Your task to perform on an android device: allow notifications from all sites in the chrome app Image 0: 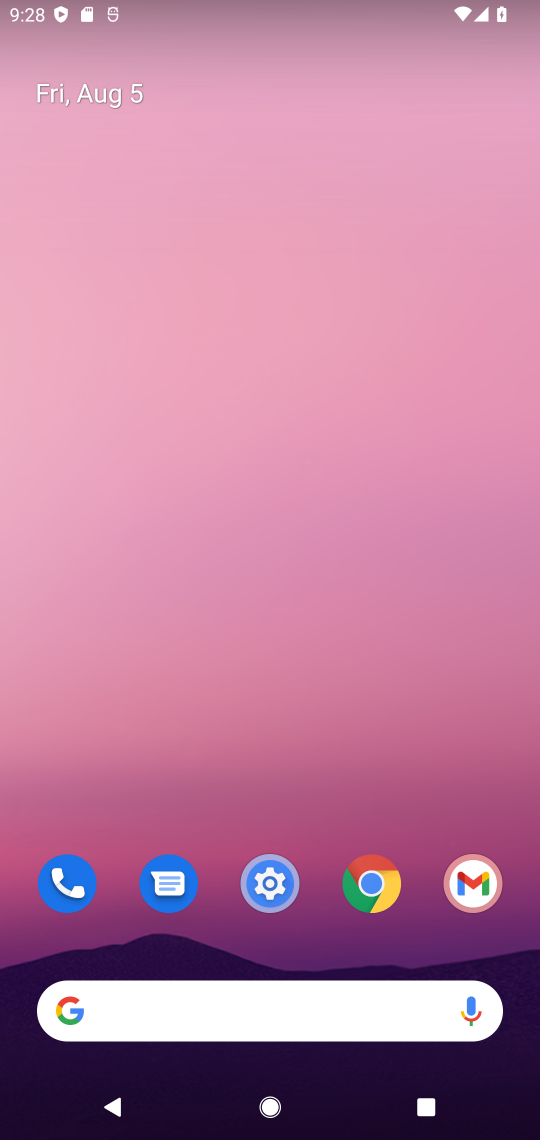
Step 0: click (379, 883)
Your task to perform on an android device: allow notifications from all sites in the chrome app Image 1: 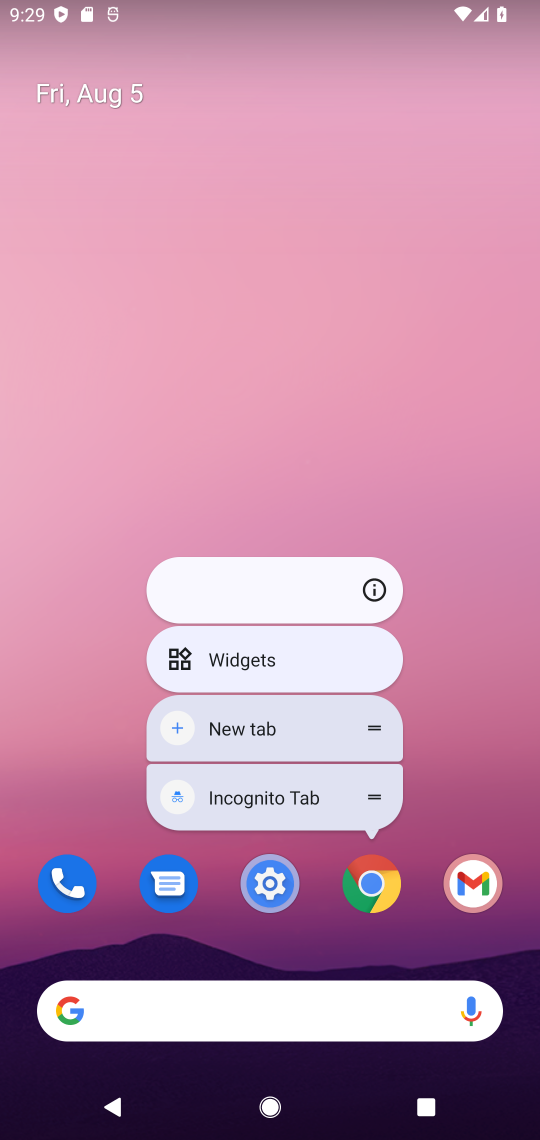
Step 1: click (350, 890)
Your task to perform on an android device: allow notifications from all sites in the chrome app Image 2: 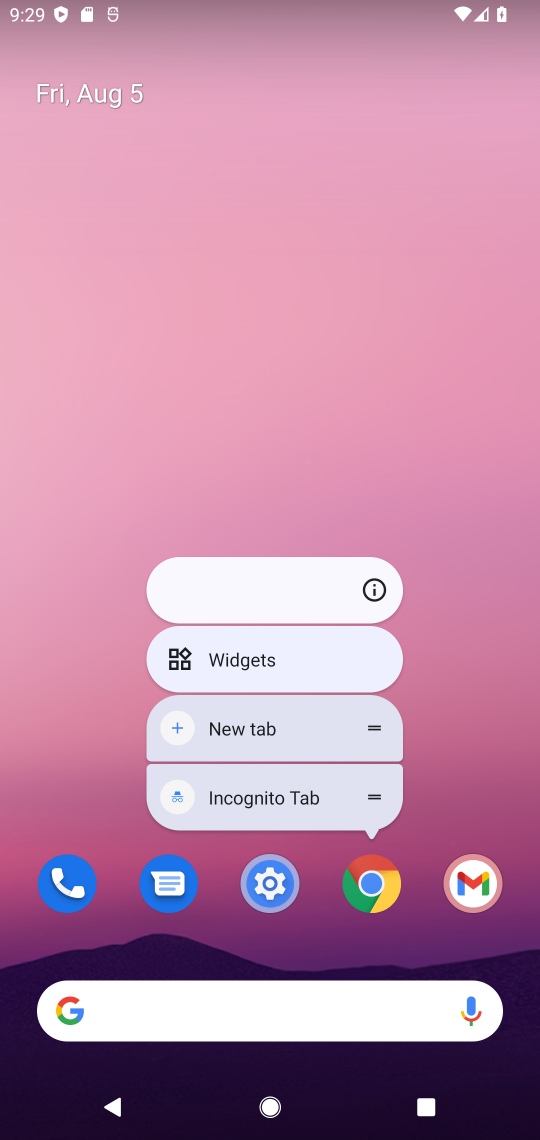
Step 2: click (379, 890)
Your task to perform on an android device: allow notifications from all sites in the chrome app Image 3: 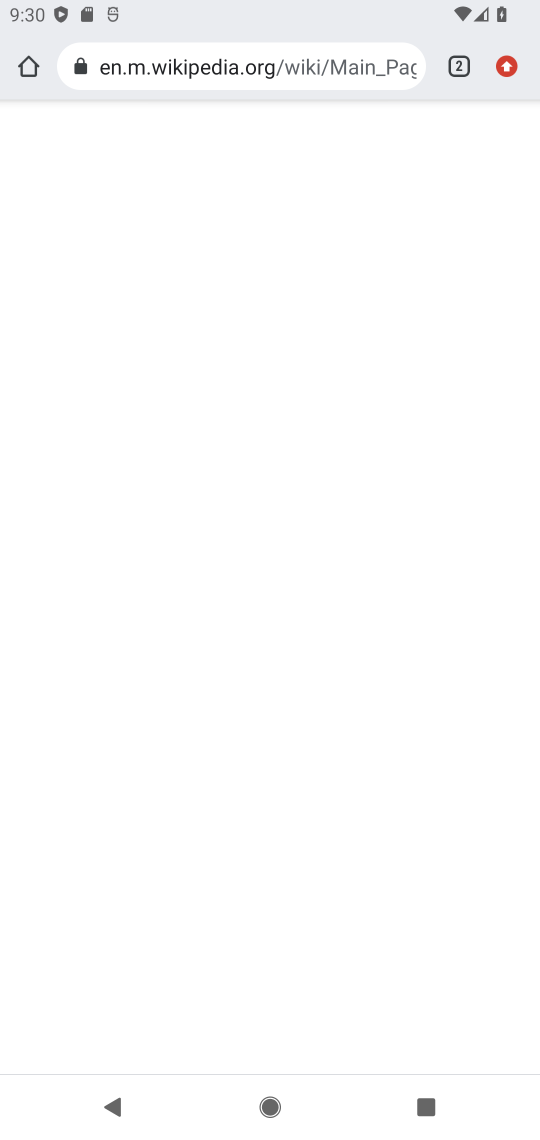
Step 3: drag from (509, 65) to (314, 876)
Your task to perform on an android device: allow notifications from all sites in the chrome app Image 4: 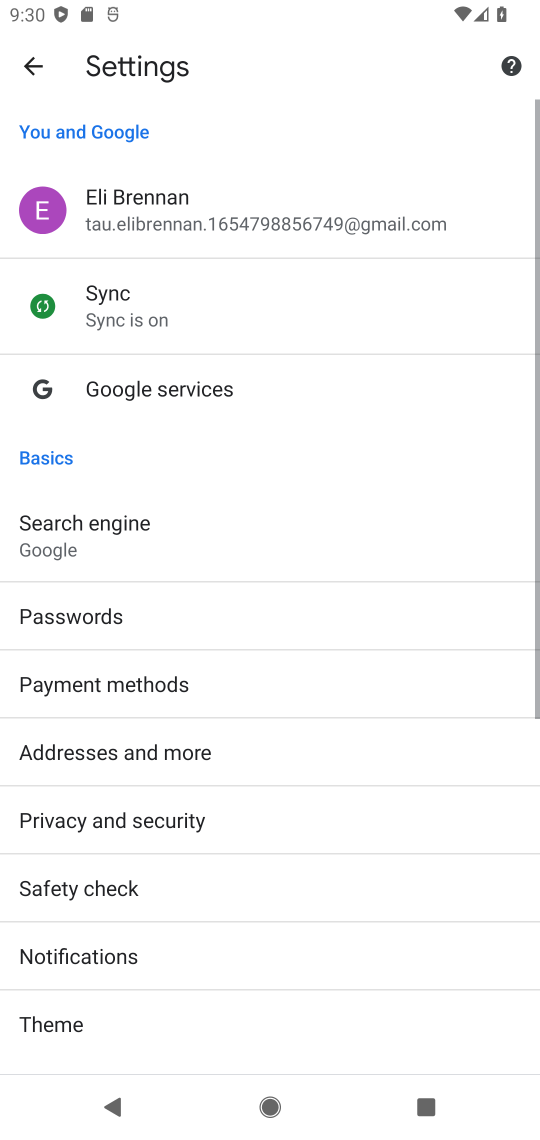
Step 4: drag from (149, 963) to (302, 135)
Your task to perform on an android device: allow notifications from all sites in the chrome app Image 5: 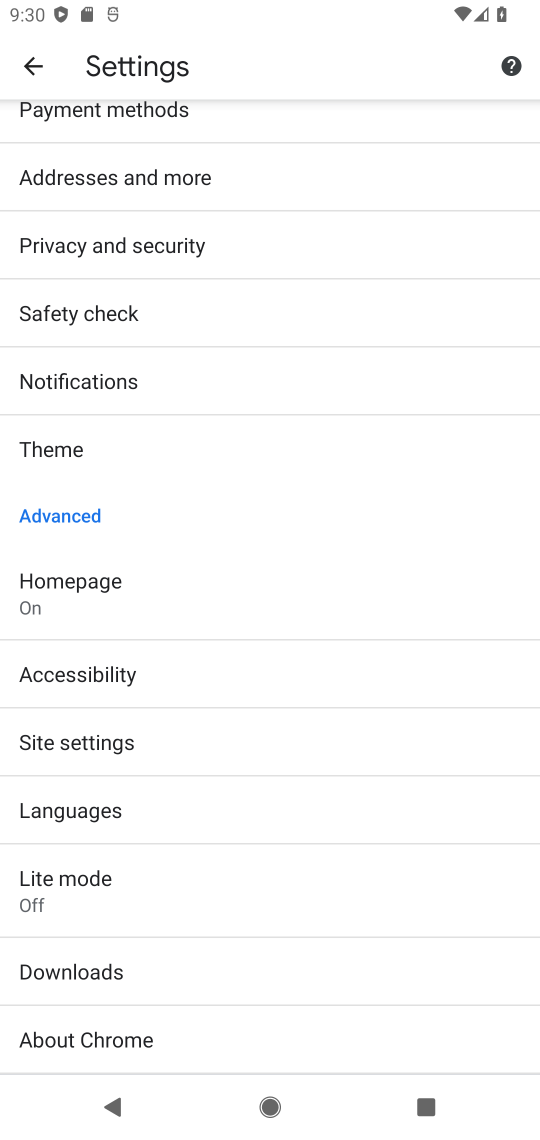
Step 5: click (84, 748)
Your task to perform on an android device: allow notifications from all sites in the chrome app Image 6: 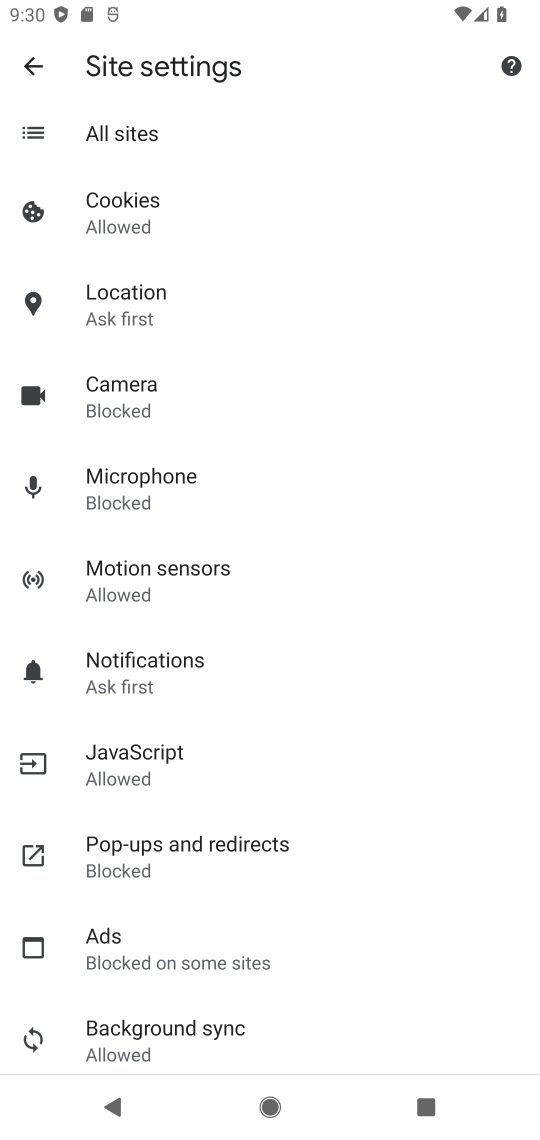
Step 6: click (185, 663)
Your task to perform on an android device: allow notifications from all sites in the chrome app Image 7: 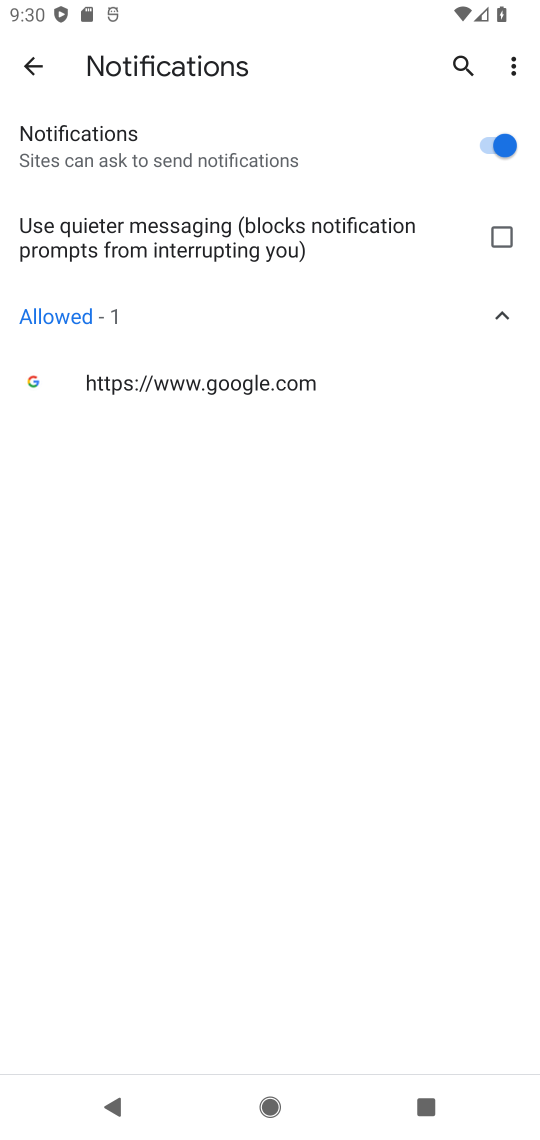
Step 7: task complete